Your task to perform on an android device: toggle location history Image 0: 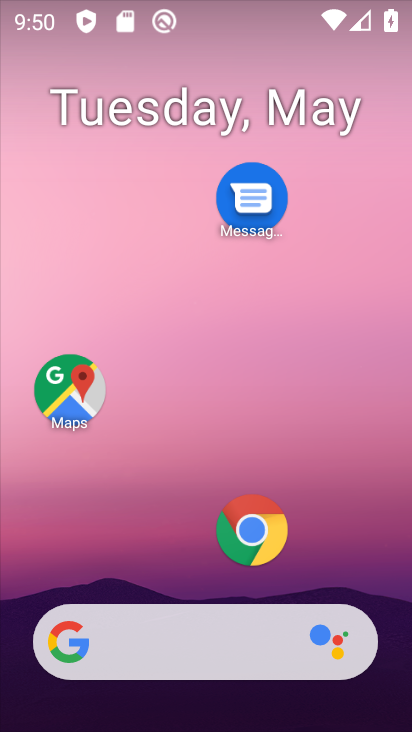
Step 0: drag from (192, 571) to (237, 65)
Your task to perform on an android device: toggle location history Image 1: 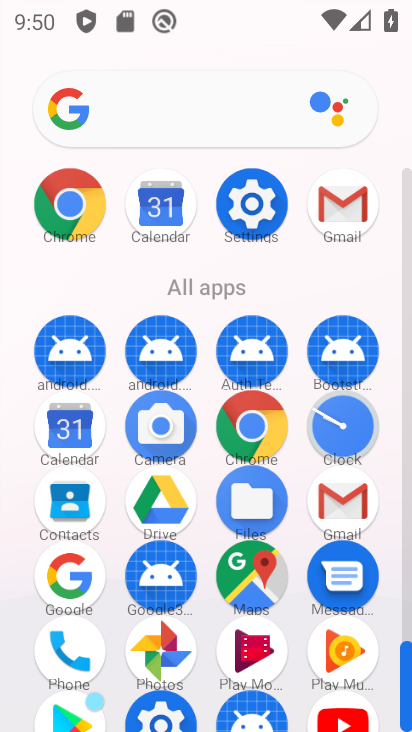
Step 1: click (252, 209)
Your task to perform on an android device: toggle location history Image 2: 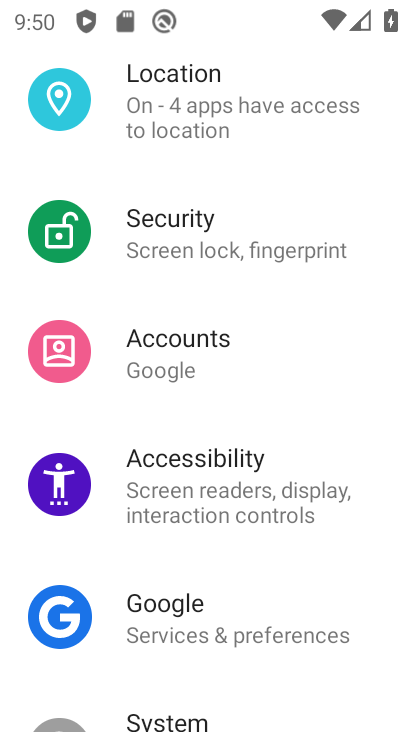
Step 2: click (168, 112)
Your task to perform on an android device: toggle location history Image 3: 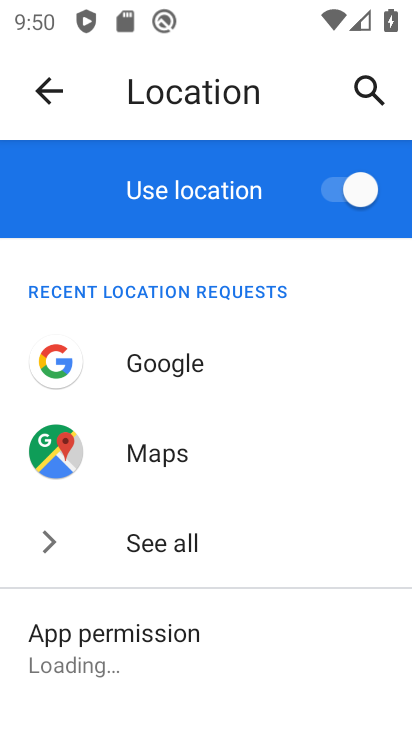
Step 3: drag from (251, 609) to (216, 377)
Your task to perform on an android device: toggle location history Image 4: 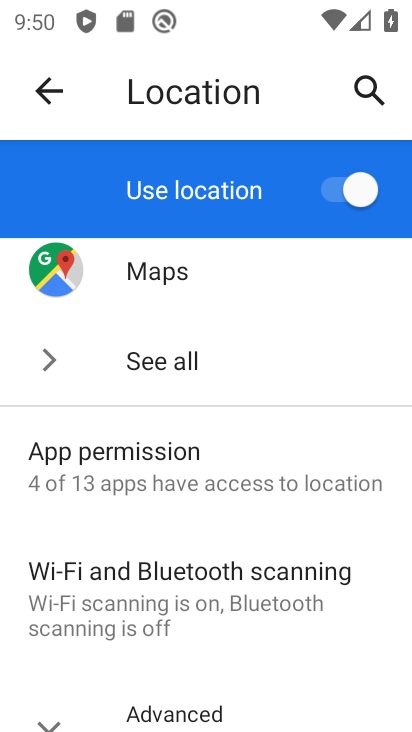
Step 4: drag from (175, 615) to (178, 393)
Your task to perform on an android device: toggle location history Image 5: 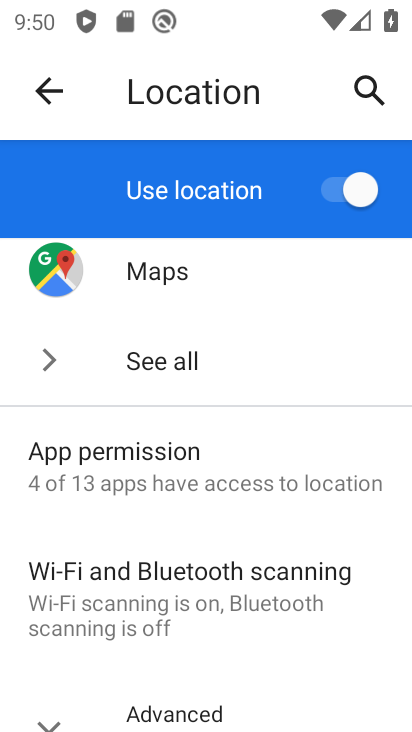
Step 5: click (158, 714)
Your task to perform on an android device: toggle location history Image 6: 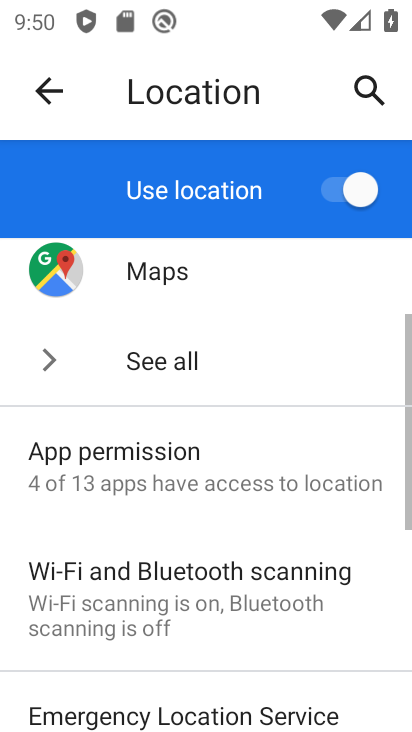
Step 6: drag from (161, 715) to (207, 442)
Your task to perform on an android device: toggle location history Image 7: 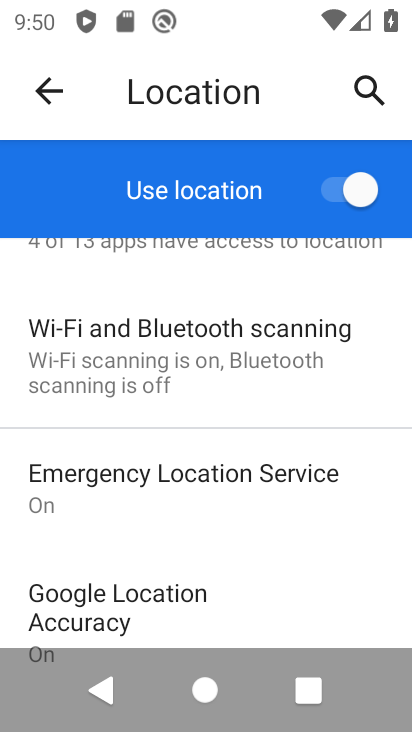
Step 7: drag from (161, 609) to (163, 361)
Your task to perform on an android device: toggle location history Image 8: 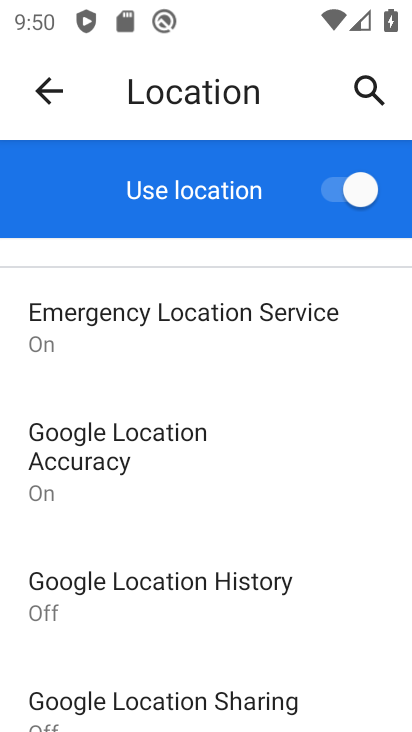
Step 8: click (166, 609)
Your task to perform on an android device: toggle location history Image 9: 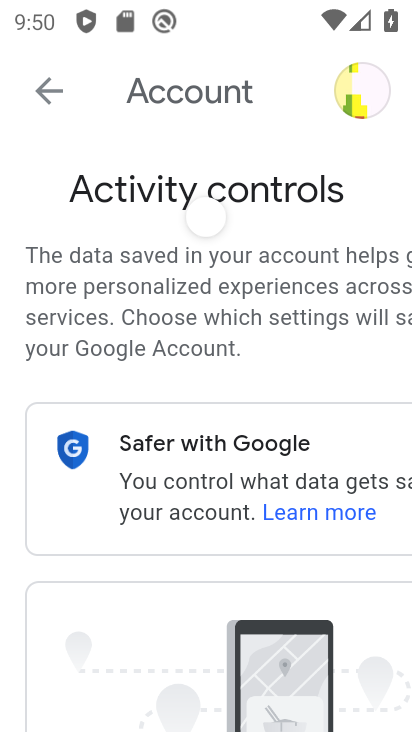
Step 9: drag from (299, 536) to (253, 257)
Your task to perform on an android device: toggle location history Image 10: 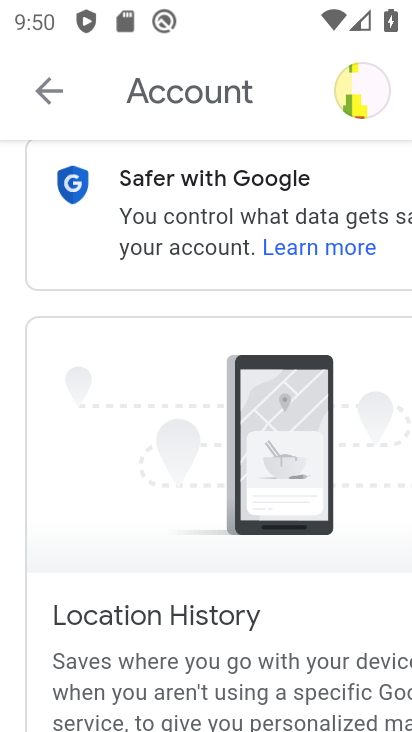
Step 10: drag from (187, 639) to (159, 264)
Your task to perform on an android device: toggle location history Image 11: 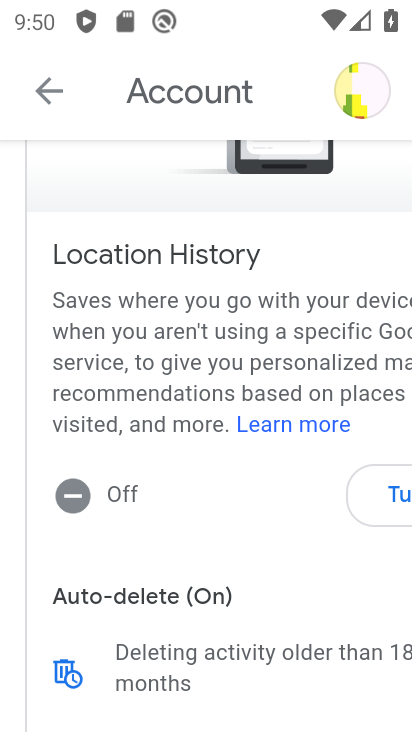
Step 11: click (385, 497)
Your task to perform on an android device: toggle location history Image 12: 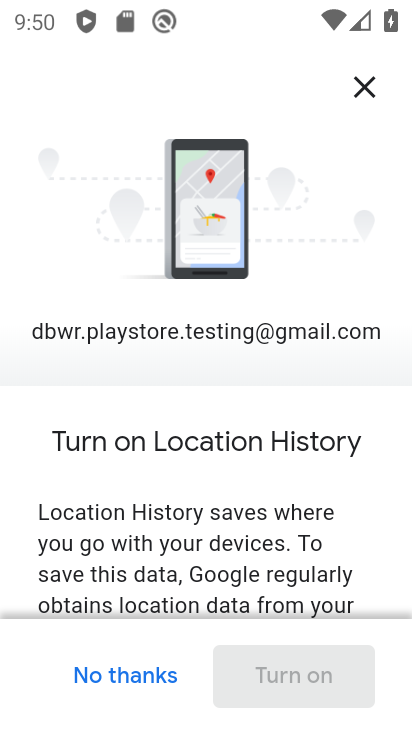
Step 12: drag from (240, 522) to (193, 263)
Your task to perform on an android device: toggle location history Image 13: 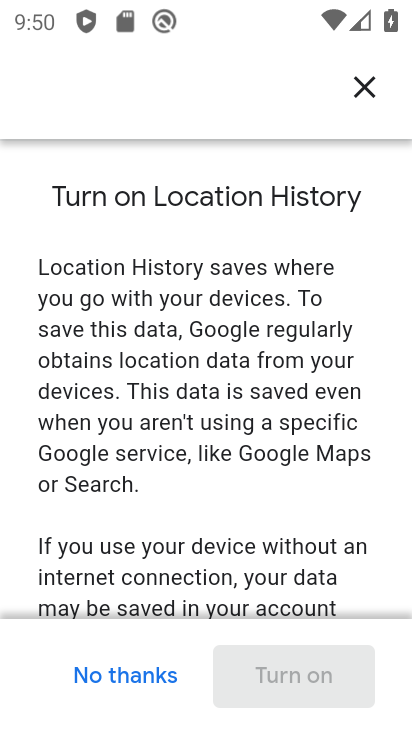
Step 13: drag from (249, 547) to (209, 266)
Your task to perform on an android device: toggle location history Image 14: 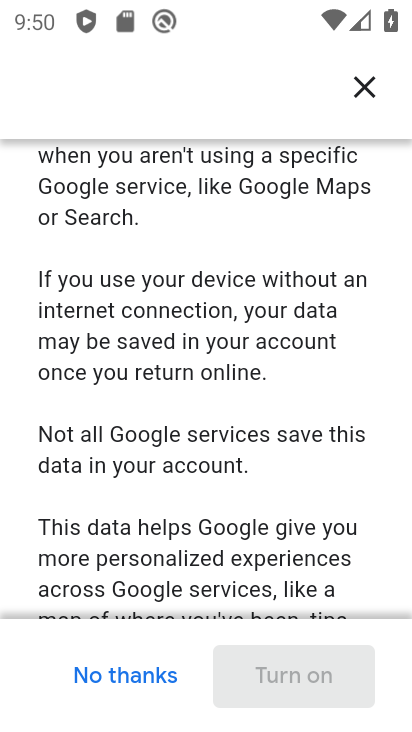
Step 14: drag from (226, 563) to (179, 250)
Your task to perform on an android device: toggle location history Image 15: 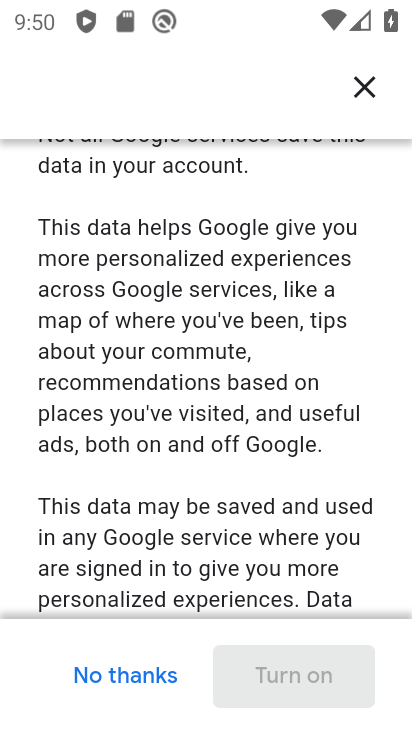
Step 15: drag from (172, 422) to (184, 309)
Your task to perform on an android device: toggle location history Image 16: 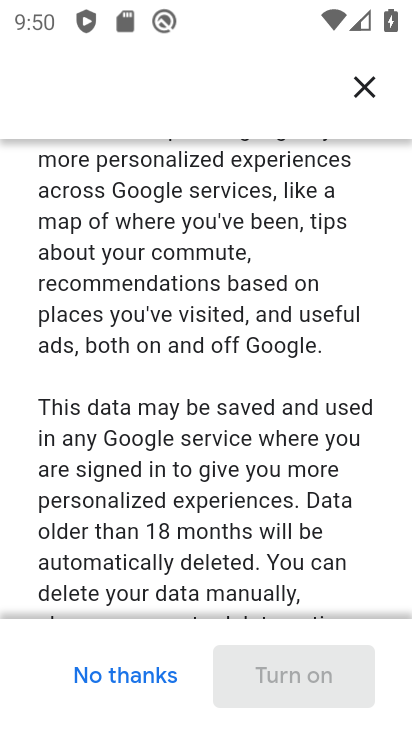
Step 16: drag from (247, 543) to (246, 152)
Your task to perform on an android device: toggle location history Image 17: 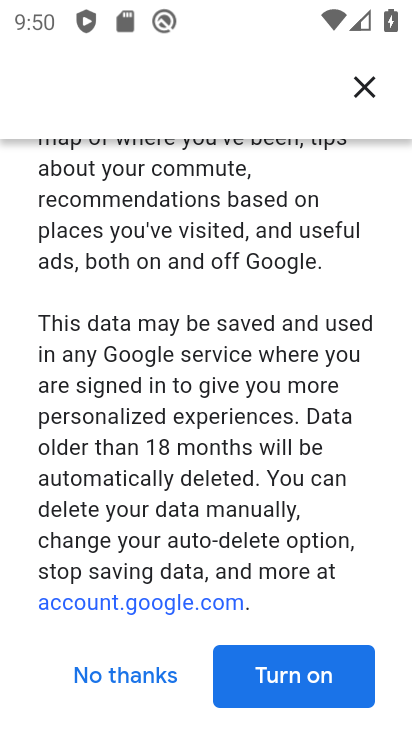
Step 17: click (257, 683)
Your task to perform on an android device: toggle location history Image 18: 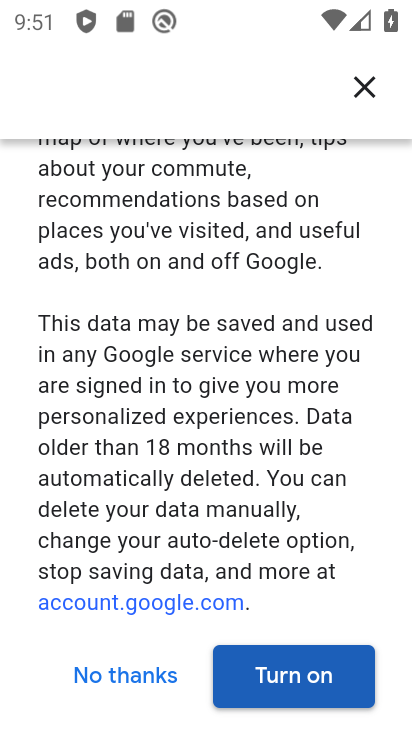
Step 18: click (314, 680)
Your task to perform on an android device: toggle location history Image 19: 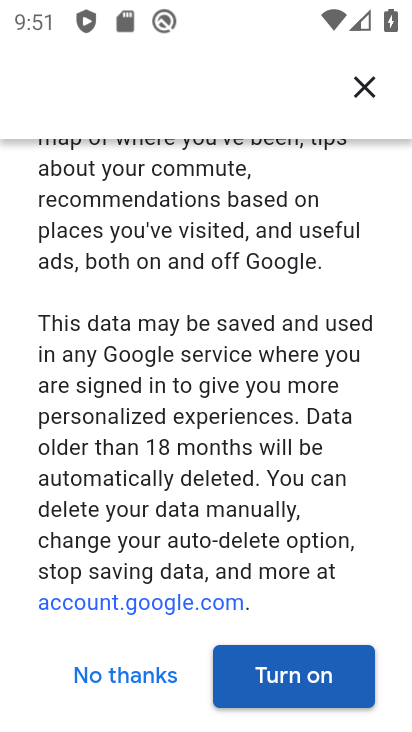
Step 19: click (318, 680)
Your task to perform on an android device: toggle location history Image 20: 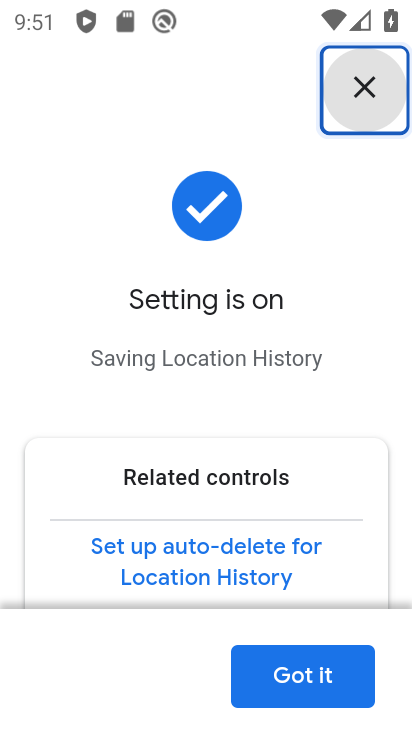
Step 20: click (325, 690)
Your task to perform on an android device: toggle location history Image 21: 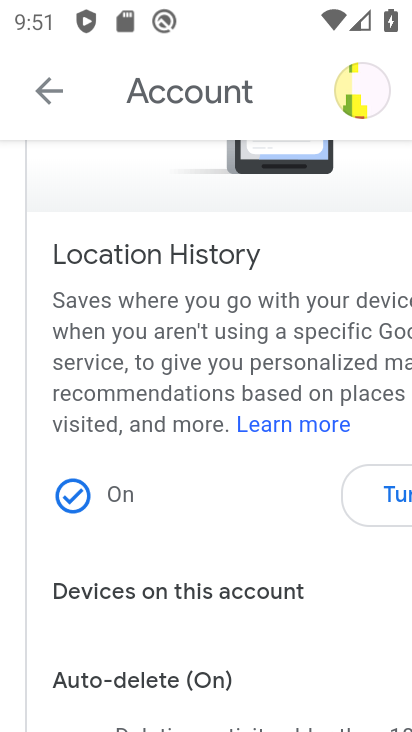
Step 21: task complete